Your task to perform on an android device: turn on showing notifications on the lock screen Image 0: 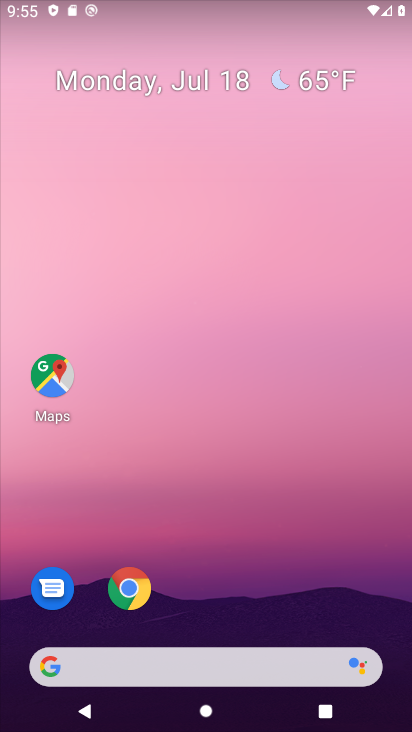
Step 0: press home button
Your task to perform on an android device: turn on showing notifications on the lock screen Image 1: 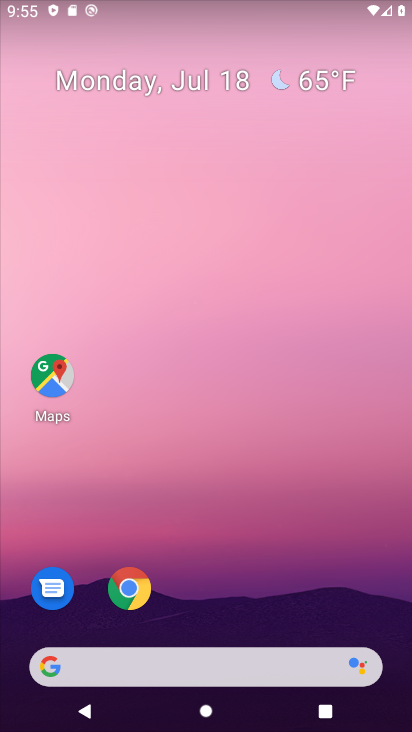
Step 1: drag from (242, 610) to (203, 200)
Your task to perform on an android device: turn on showing notifications on the lock screen Image 2: 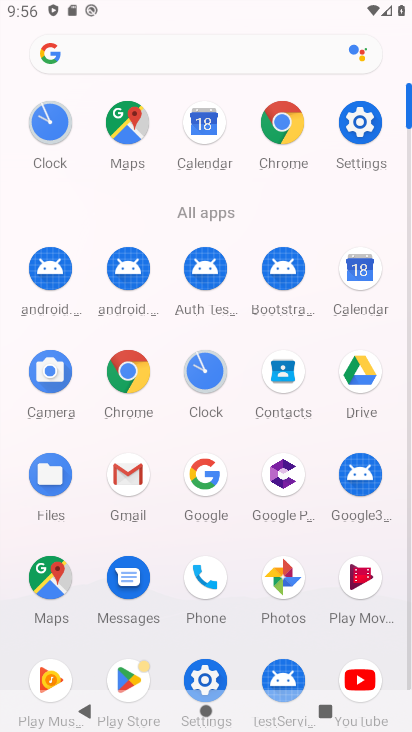
Step 2: click (205, 680)
Your task to perform on an android device: turn on showing notifications on the lock screen Image 3: 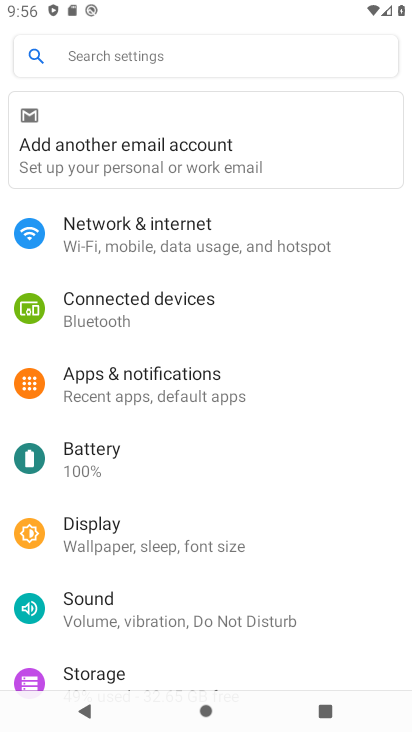
Step 3: click (154, 386)
Your task to perform on an android device: turn on showing notifications on the lock screen Image 4: 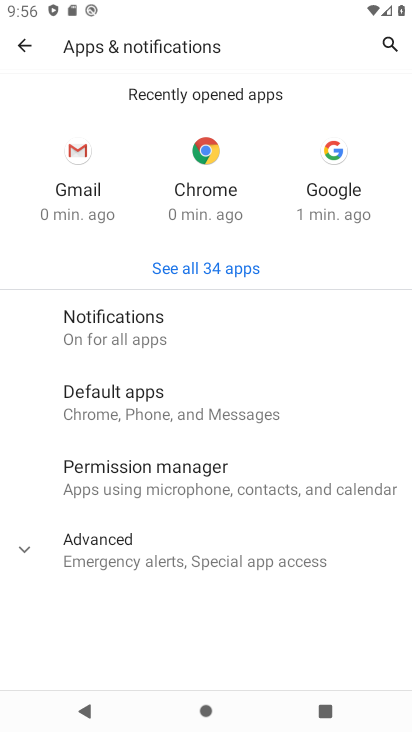
Step 4: click (117, 330)
Your task to perform on an android device: turn on showing notifications on the lock screen Image 5: 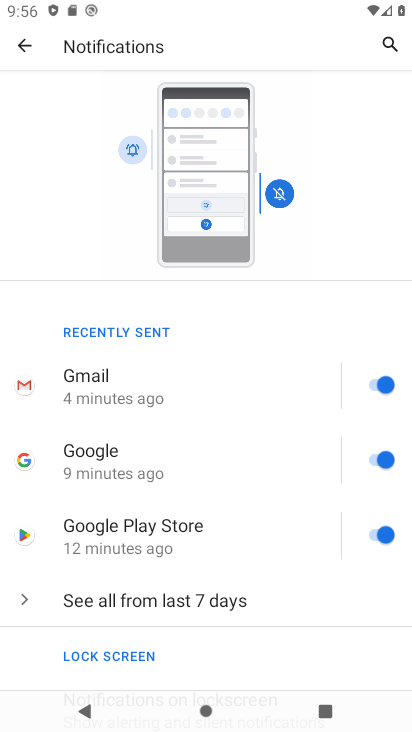
Step 5: drag from (270, 634) to (289, 160)
Your task to perform on an android device: turn on showing notifications on the lock screen Image 6: 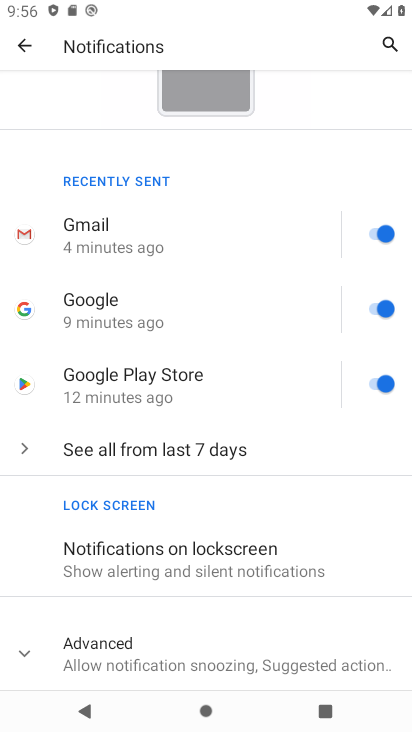
Step 6: click (166, 576)
Your task to perform on an android device: turn on showing notifications on the lock screen Image 7: 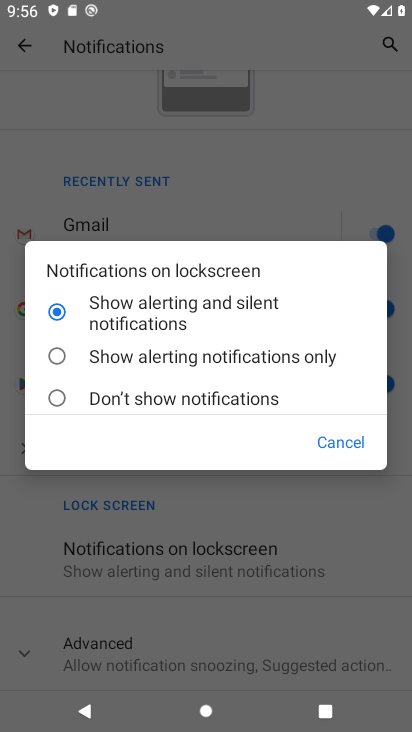
Step 7: task complete